Your task to perform on an android device: Open the web browser Image 0: 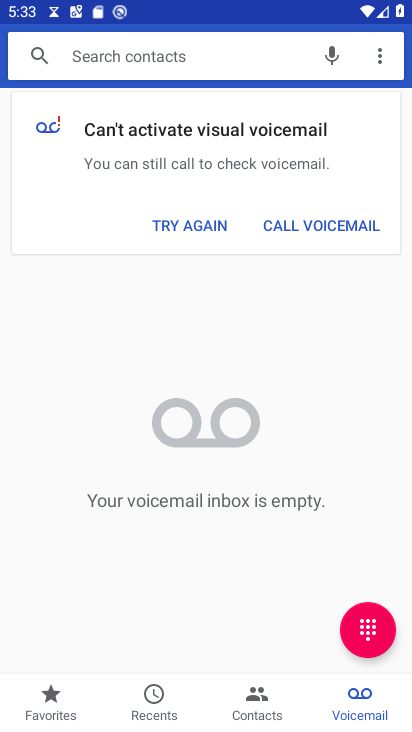
Step 0: press home button
Your task to perform on an android device: Open the web browser Image 1: 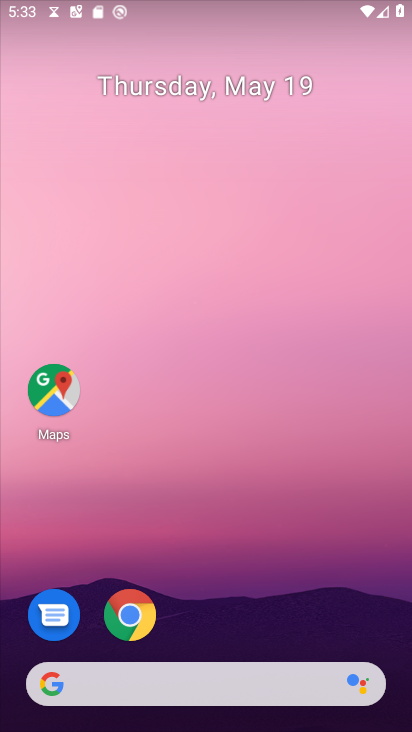
Step 1: drag from (290, 653) to (251, 96)
Your task to perform on an android device: Open the web browser Image 2: 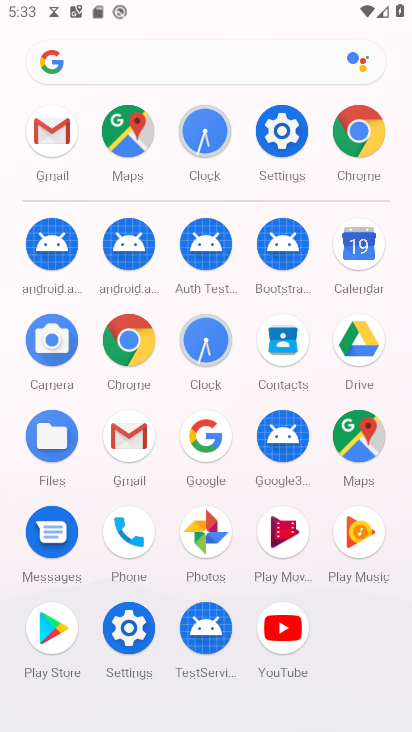
Step 2: click (118, 355)
Your task to perform on an android device: Open the web browser Image 3: 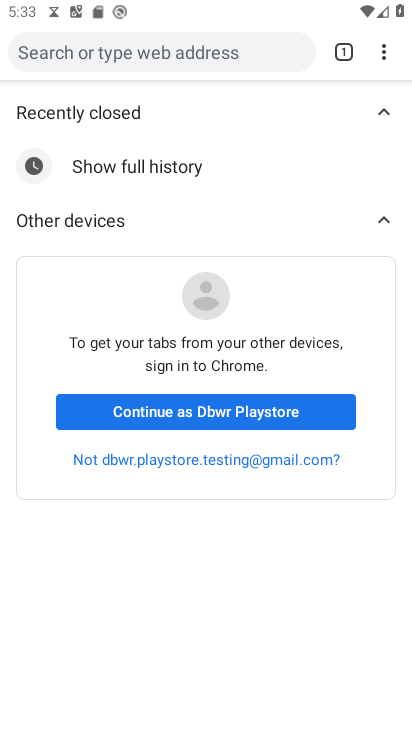
Step 3: task complete